Your task to perform on an android device: Search for a 3D printer on aliexpress. Image 0: 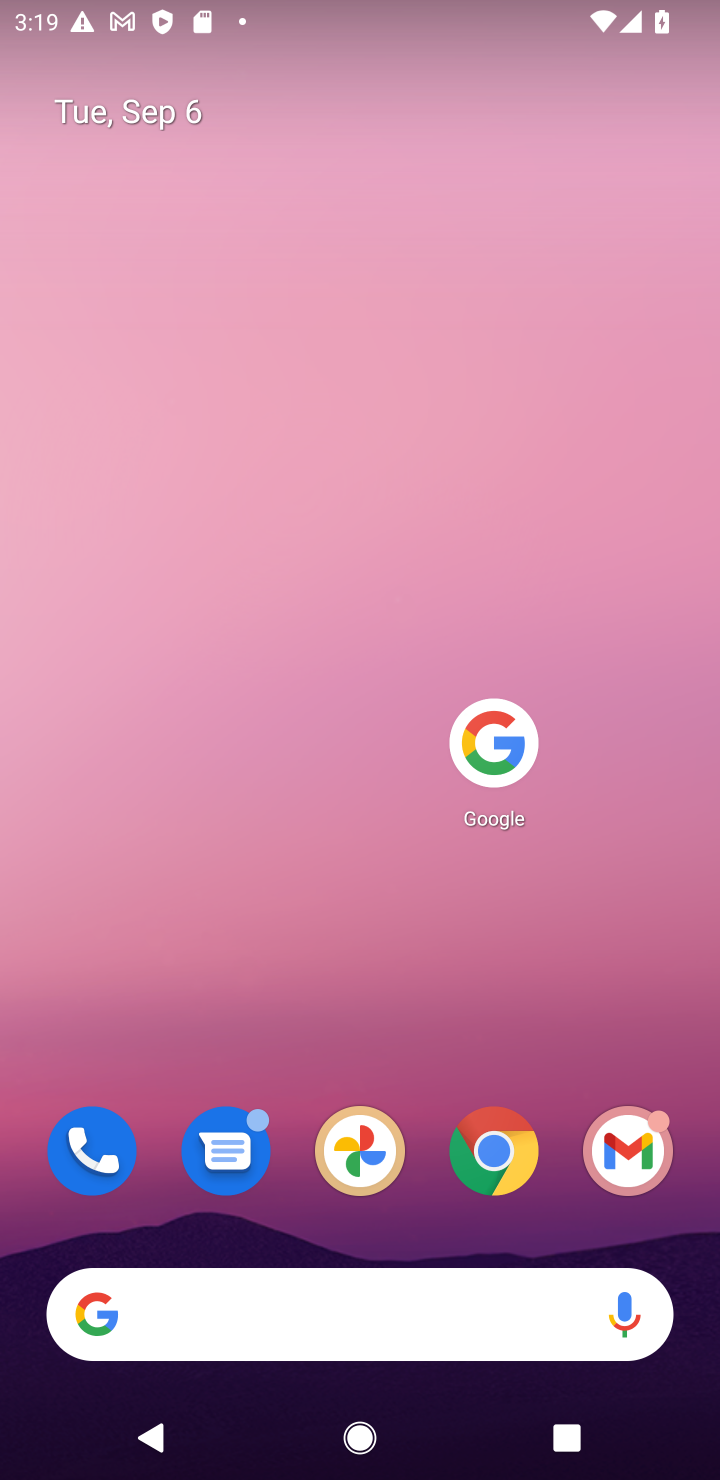
Step 0: click (471, 731)
Your task to perform on an android device: Search for a 3D printer on aliexpress. Image 1: 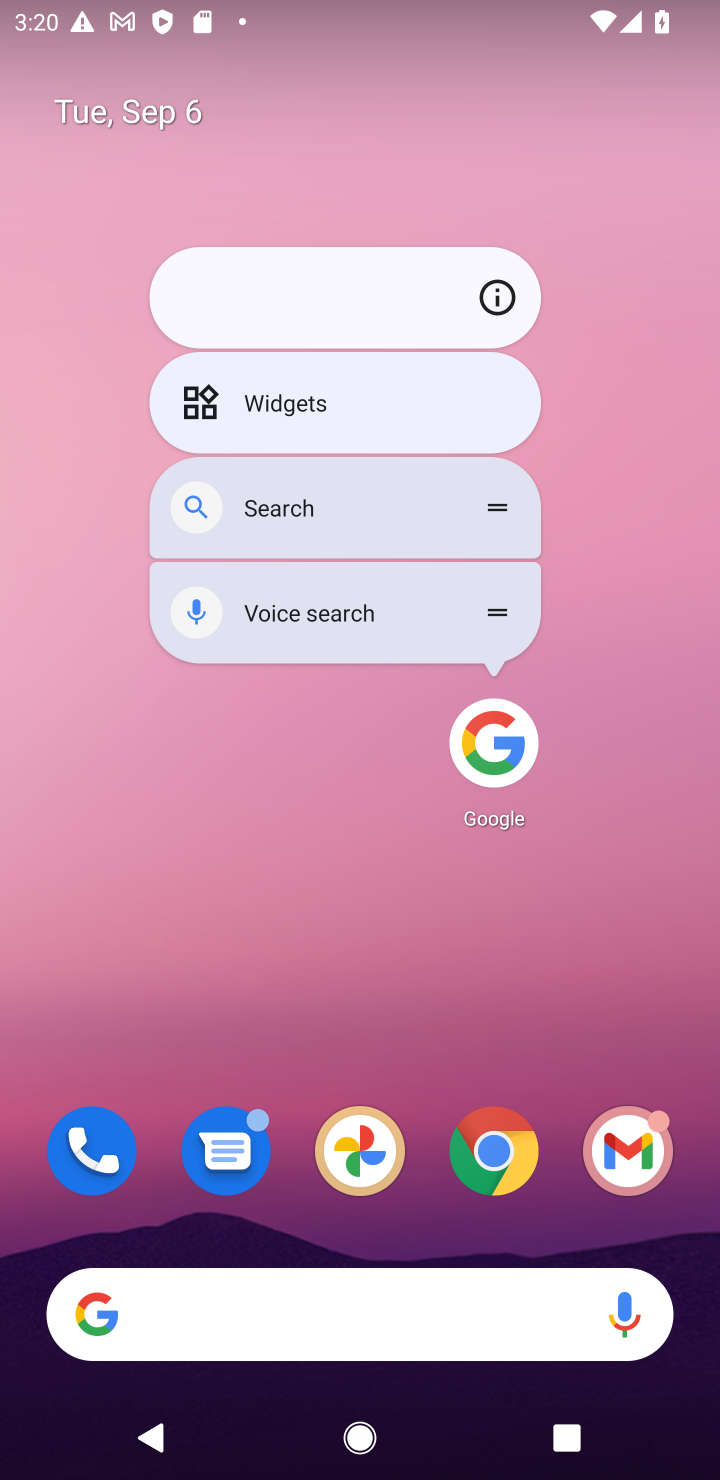
Step 1: click (504, 704)
Your task to perform on an android device: Search for a 3D printer on aliexpress. Image 2: 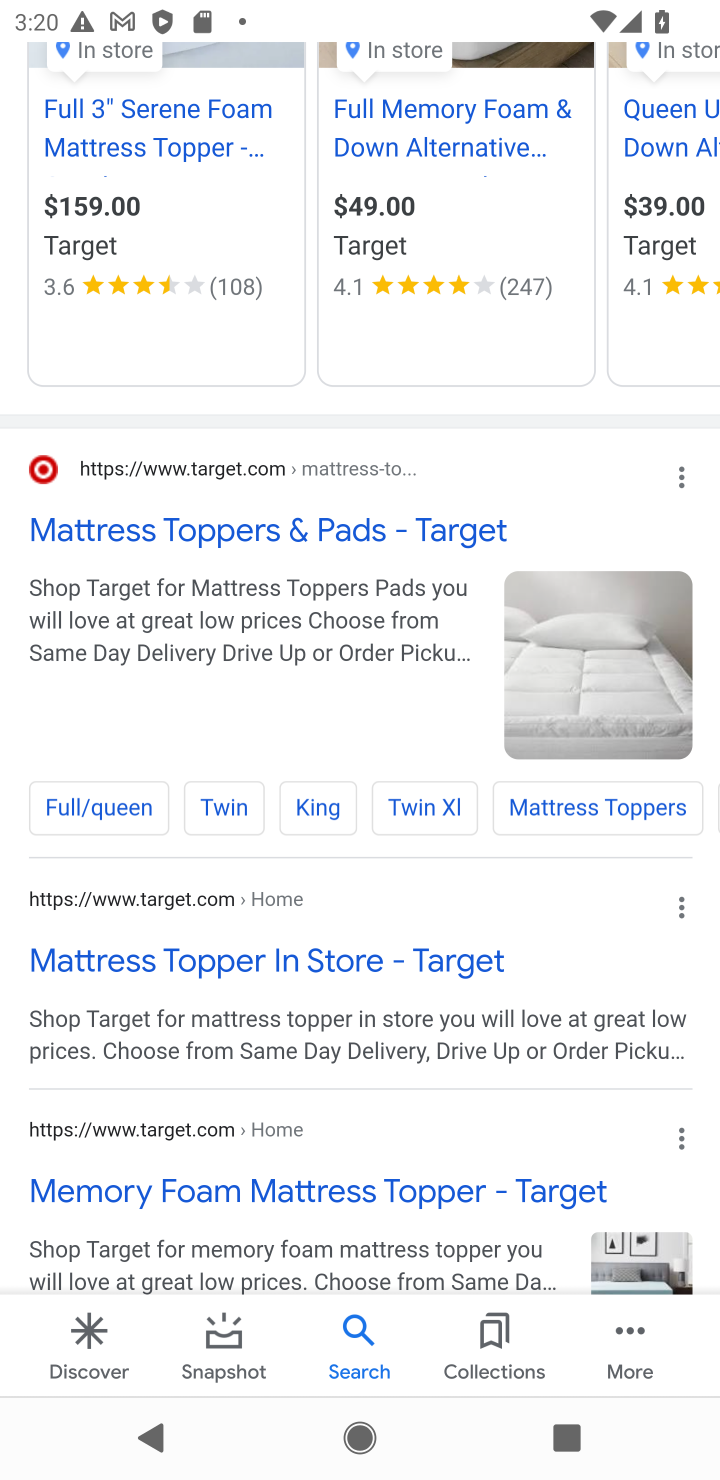
Step 2: drag from (315, 930) to (299, 1382)
Your task to perform on an android device: Search for a 3D printer on aliexpress. Image 3: 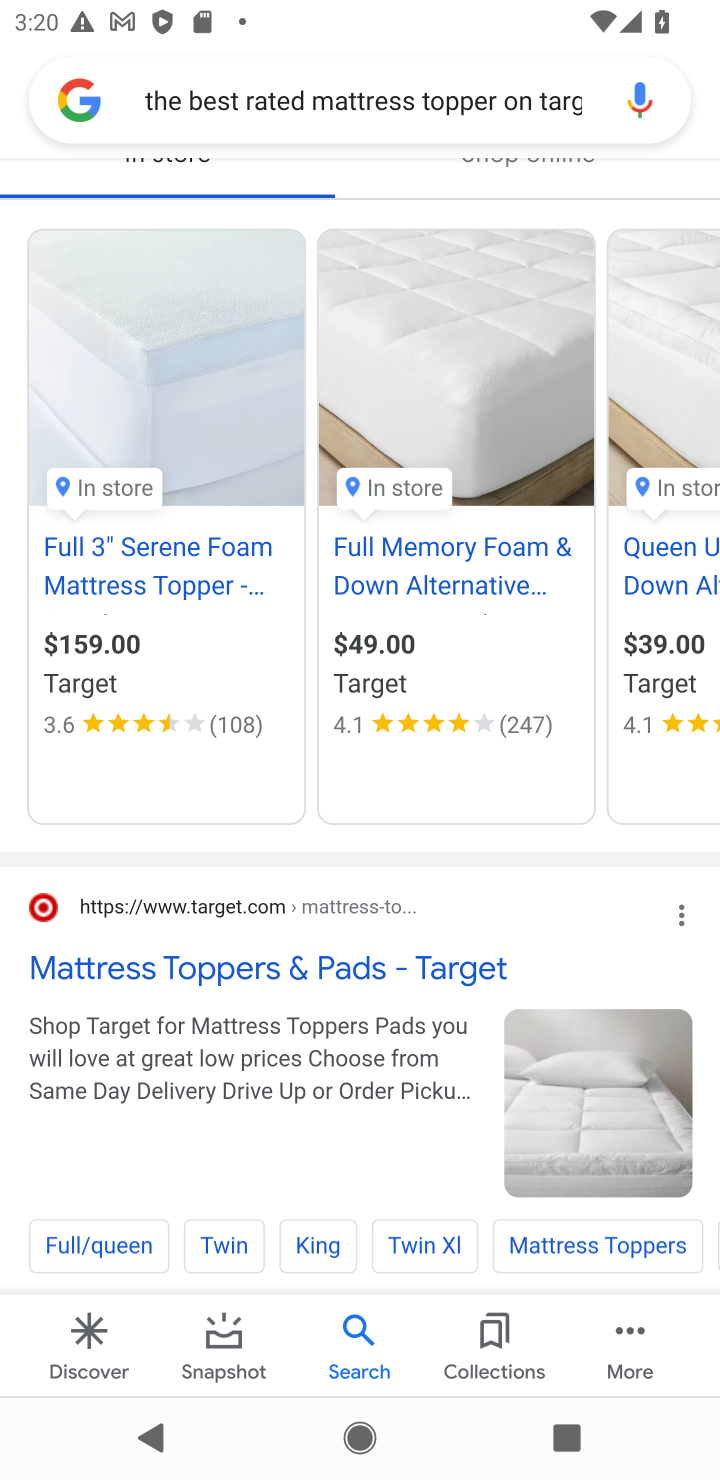
Step 3: drag from (380, 339) to (357, 1054)
Your task to perform on an android device: Search for a 3D printer on aliexpress. Image 4: 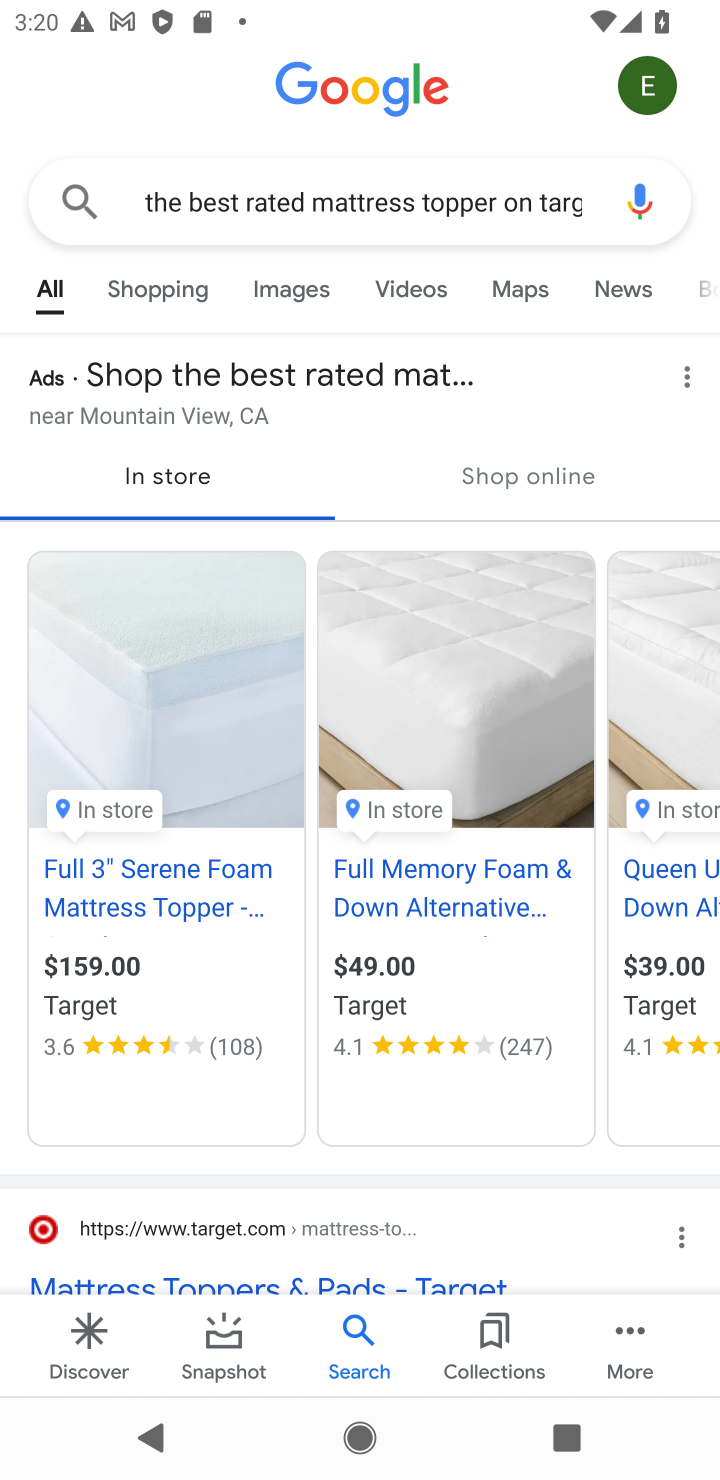
Step 4: click (367, 190)
Your task to perform on an android device: Search for a 3D printer on aliexpress. Image 5: 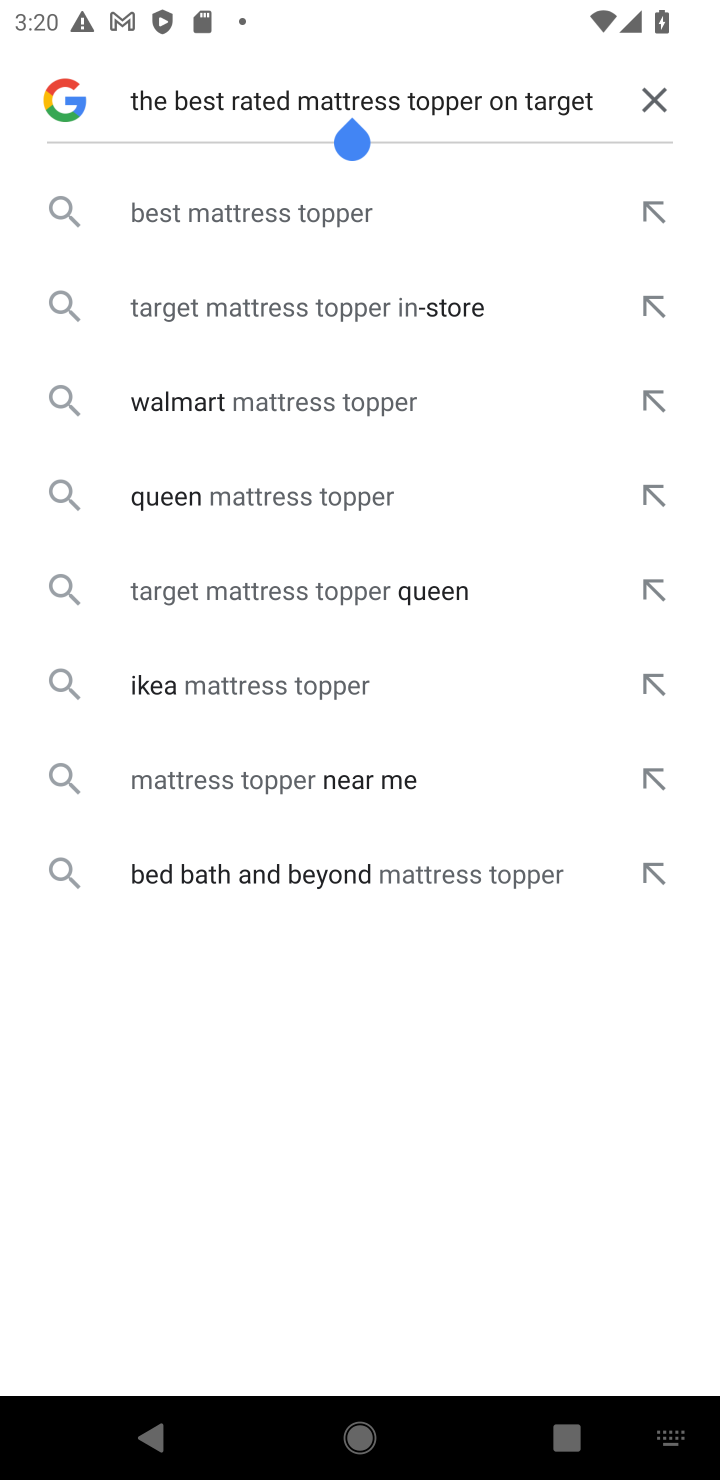
Step 5: click (651, 110)
Your task to perform on an android device: Search for a 3D printer on aliexpress. Image 6: 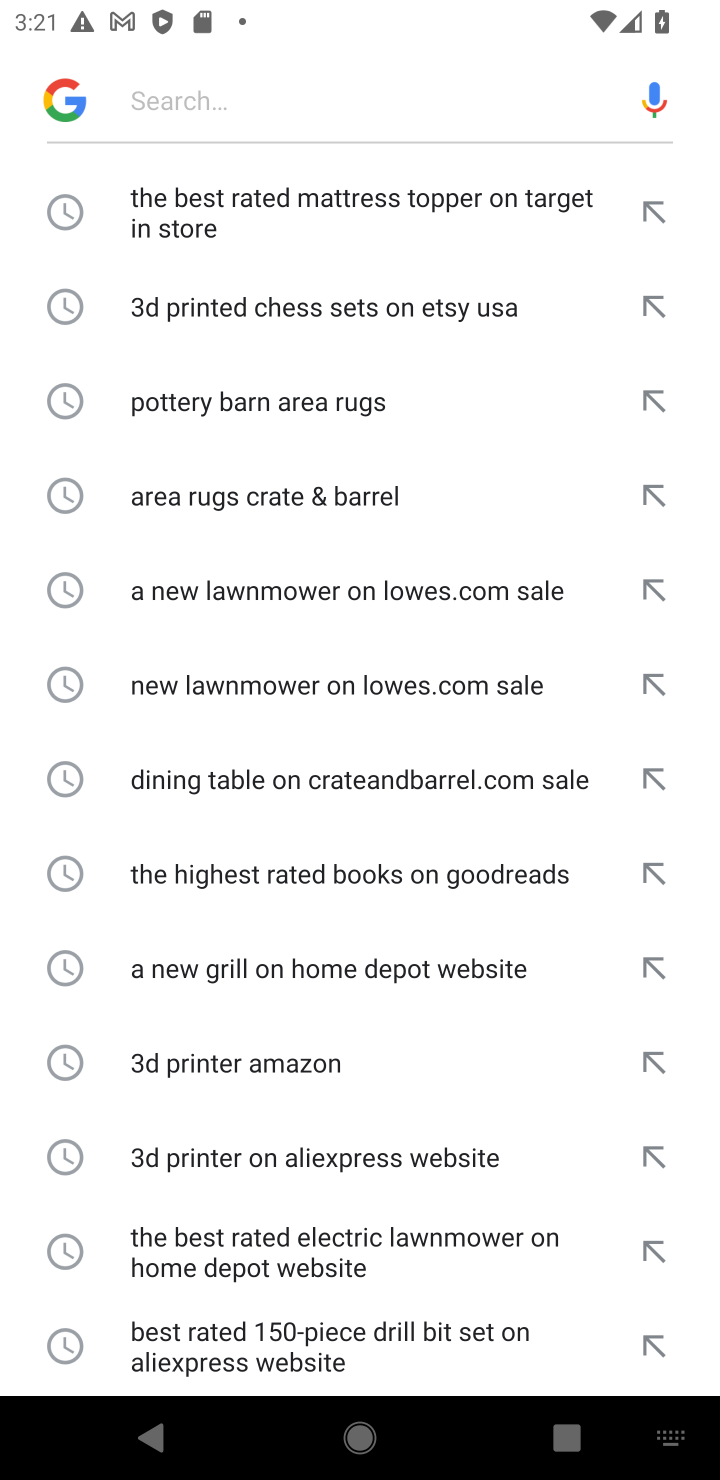
Step 6: click (320, 81)
Your task to perform on an android device: Search for a 3D printer on aliexpress. Image 7: 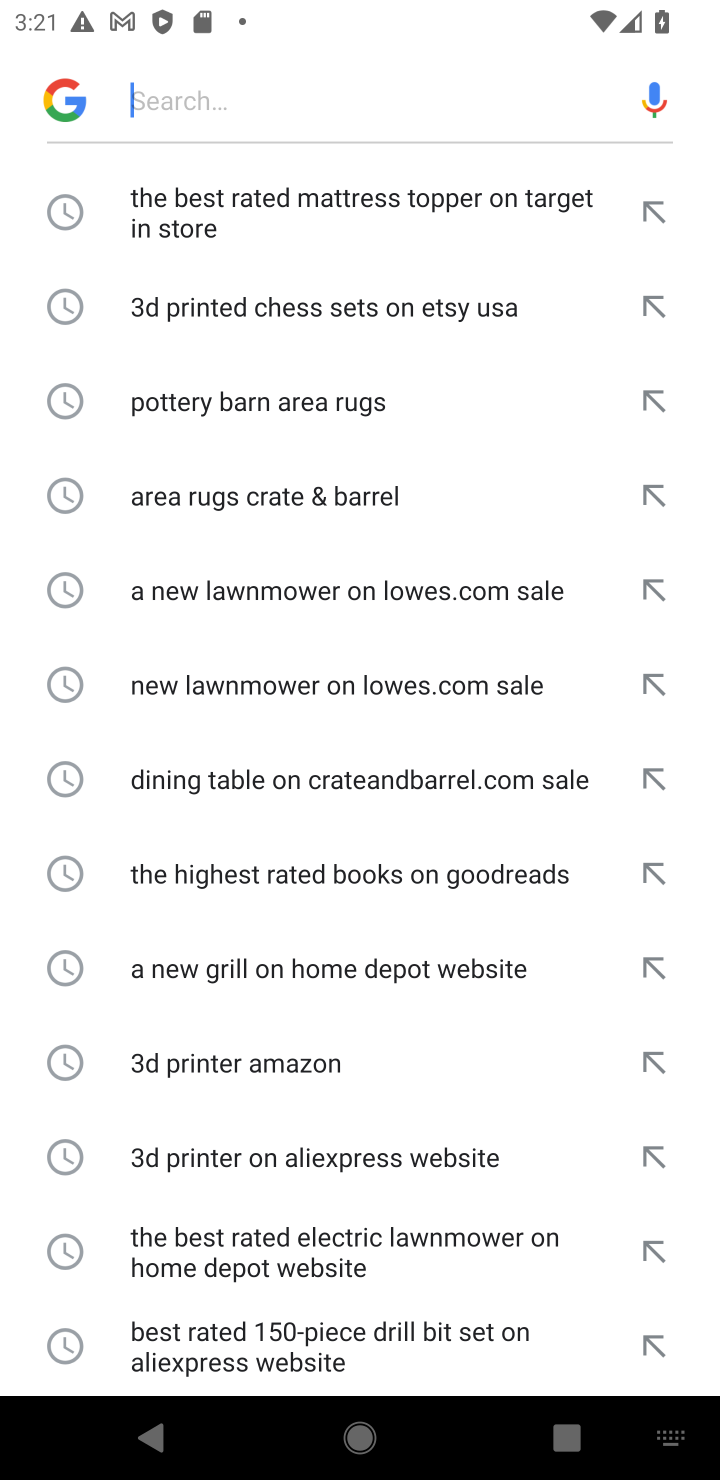
Step 7: type " a 3D printer on aliexpress "
Your task to perform on an android device: Search for a 3D printer on aliexpress. Image 8: 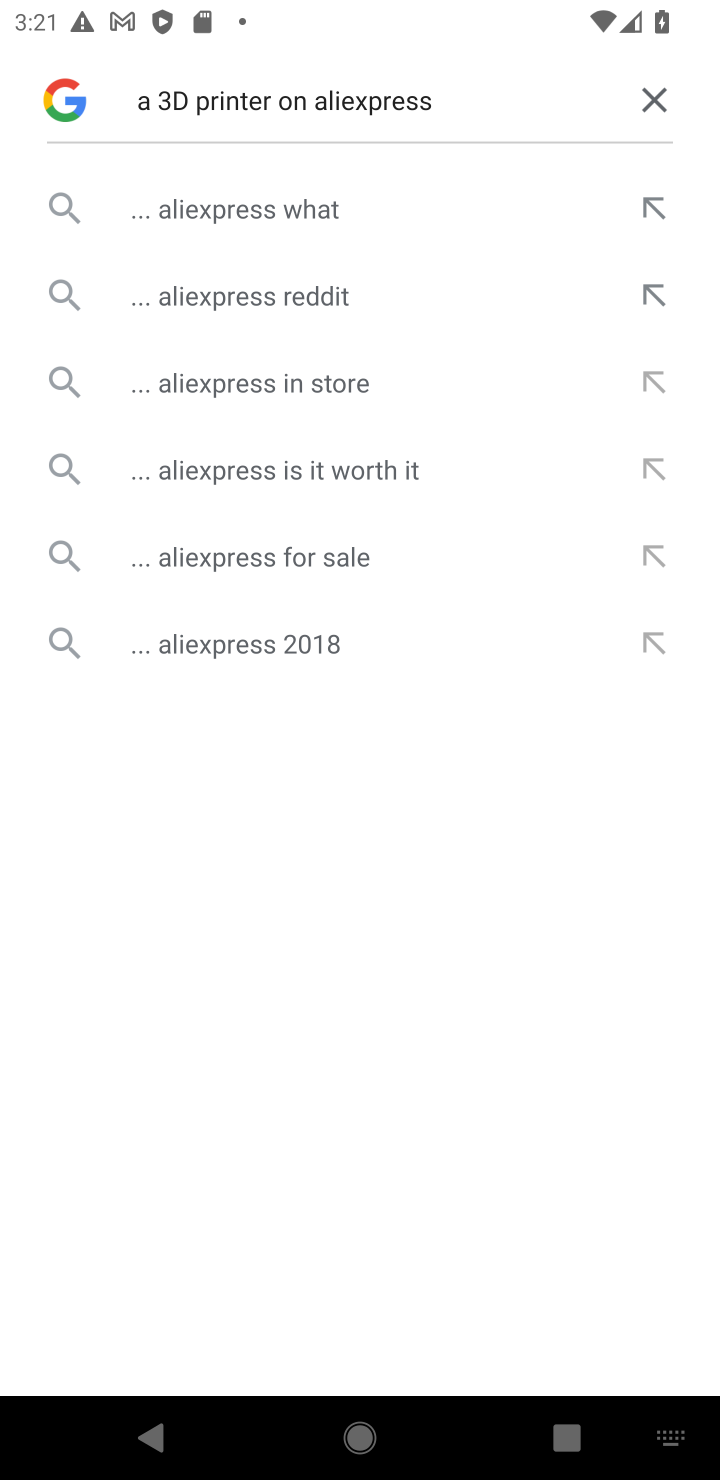
Step 8: click (250, 395)
Your task to perform on an android device: Search for a 3D printer on aliexpress. Image 9: 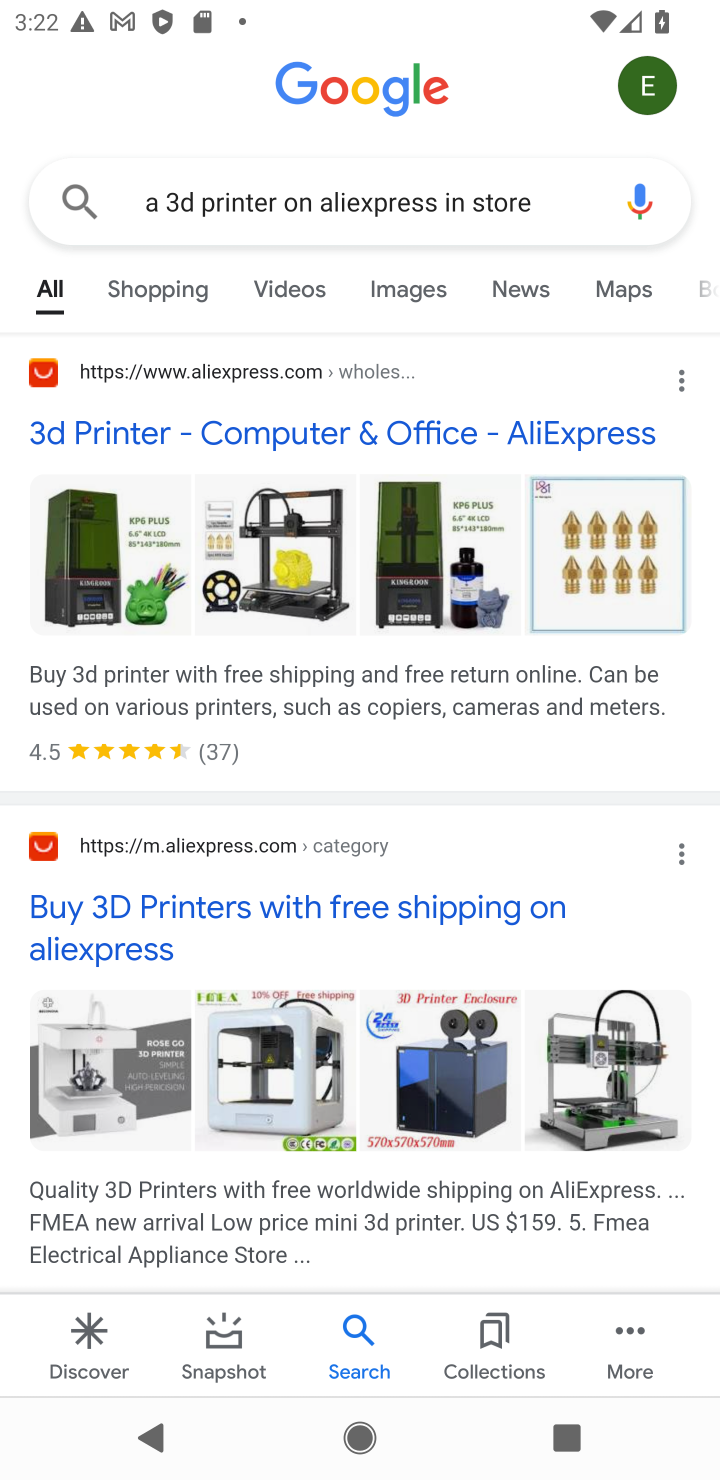
Step 9: task complete